Your task to perform on an android device: Go to Yahoo.com Image 0: 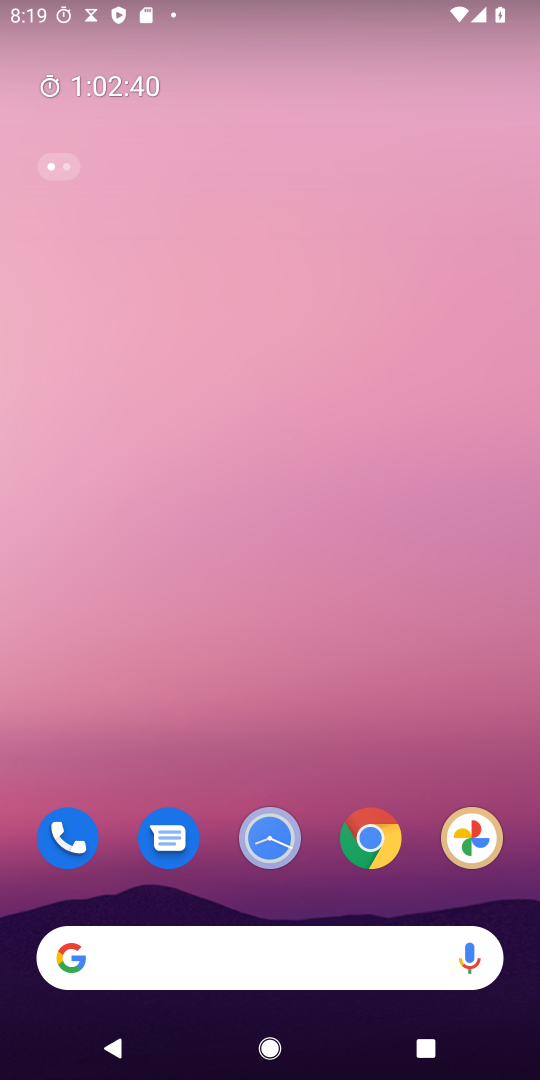
Step 0: press home button
Your task to perform on an android device: Go to Yahoo.com Image 1: 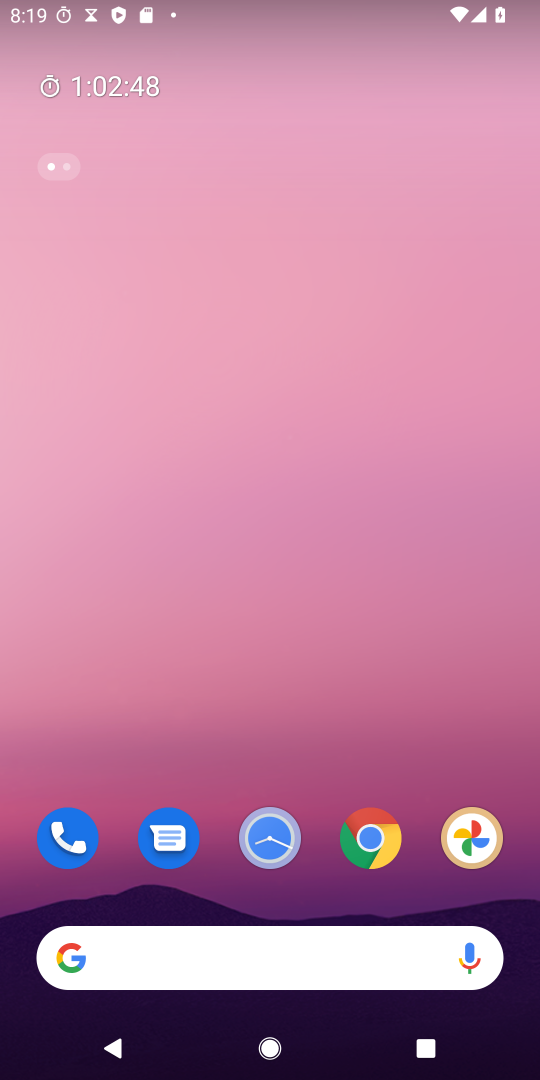
Step 1: click (370, 844)
Your task to perform on an android device: Go to Yahoo.com Image 2: 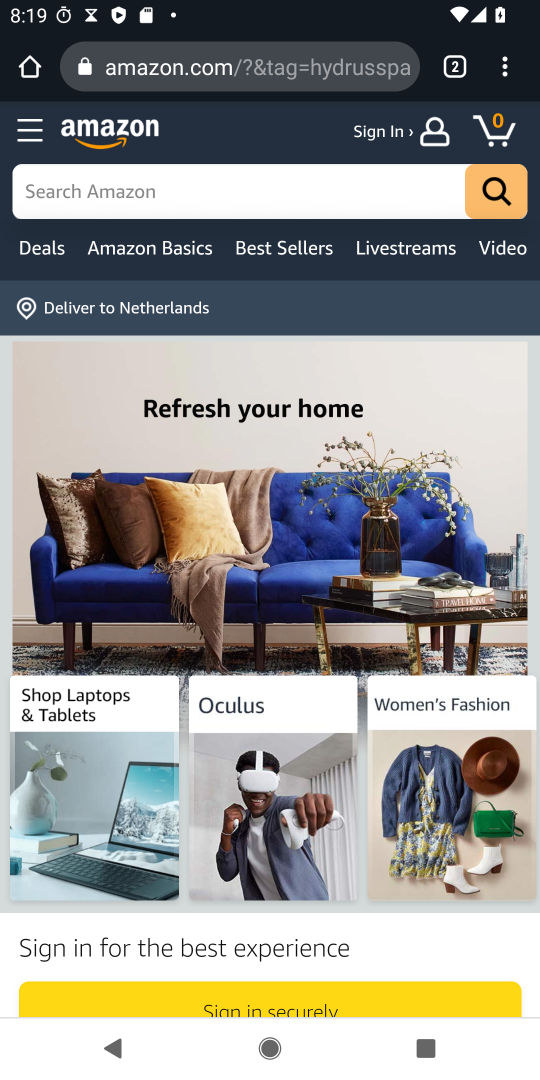
Step 2: click (297, 78)
Your task to perform on an android device: Go to Yahoo.com Image 3: 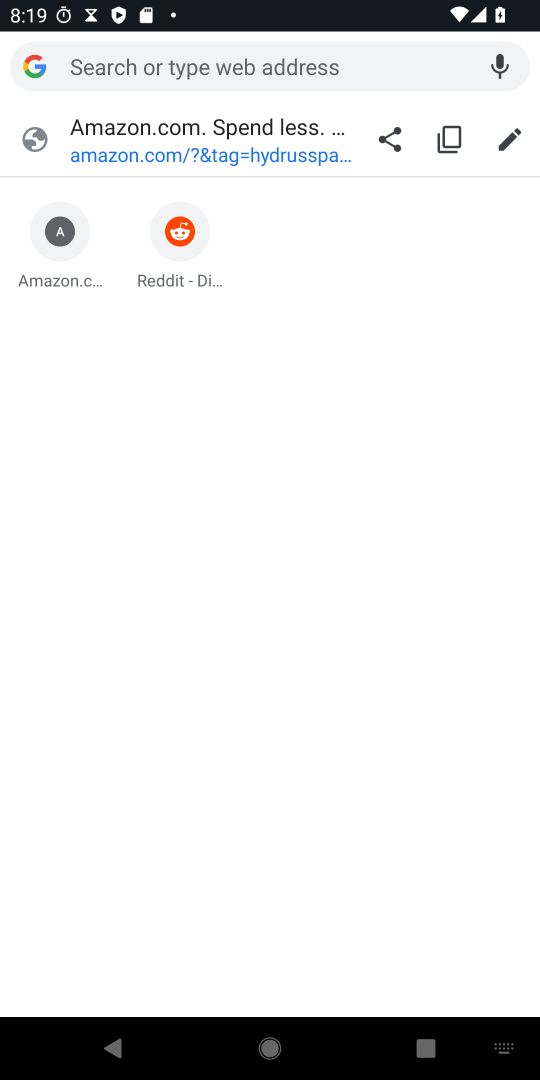
Step 3: type "Yahoo.com"
Your task to perform on an android device: Go to Yahoo.com Image 4: 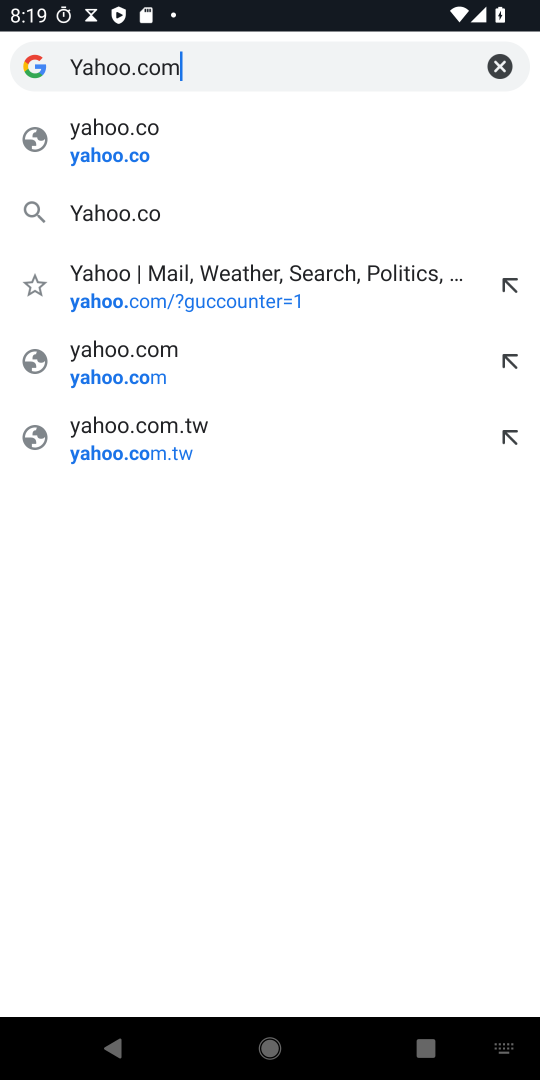
Step 4: type ""
Your task to perform on an android device: Go to Yahoo.com Image 5: 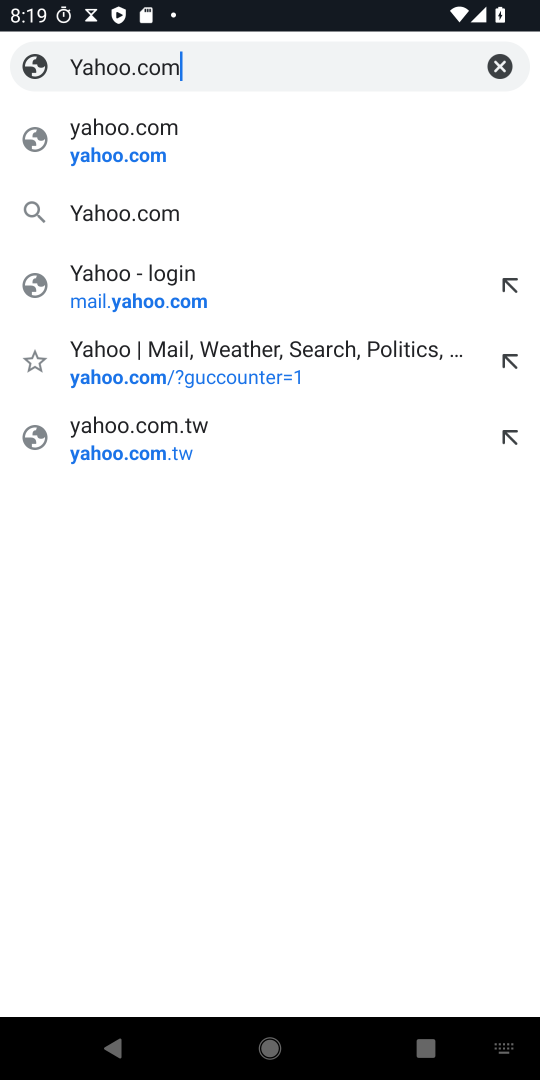
Step 5: click (56, 148)
Your task to perform on an android device: Go to Yahoo.com Image 6: 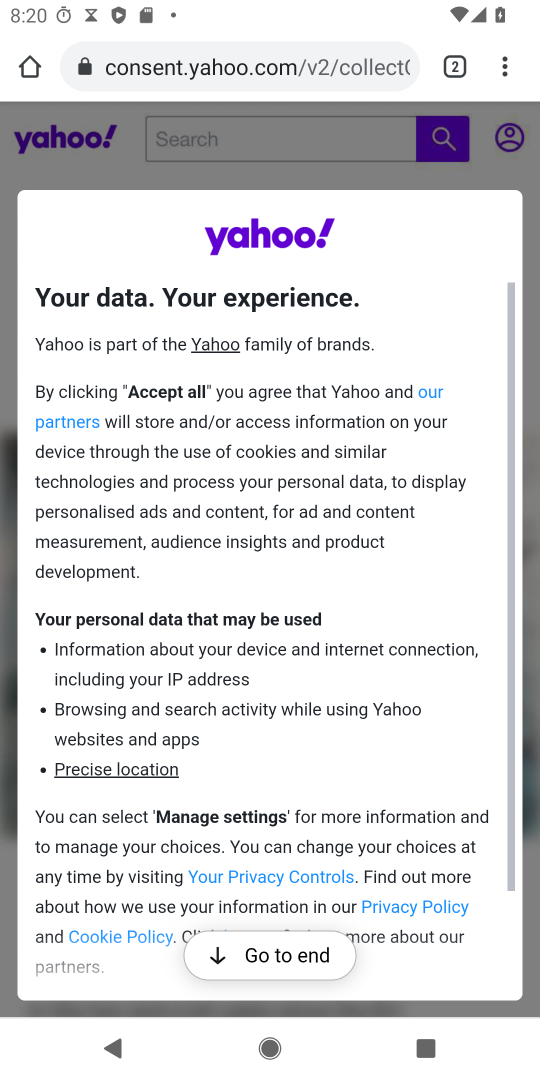
Step 6: task complete